Your task to perform on an android device: turn on translation in the chrome app Image 0: 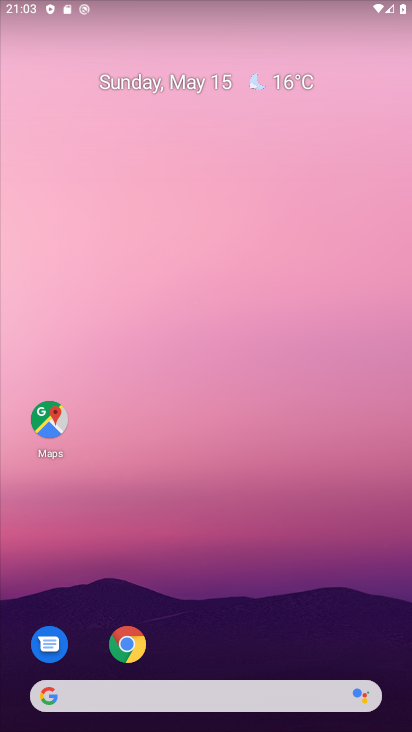
Step 0: click (120, 636)
Your task to perform on an android device: turn on translation in the chrome app Image 1: 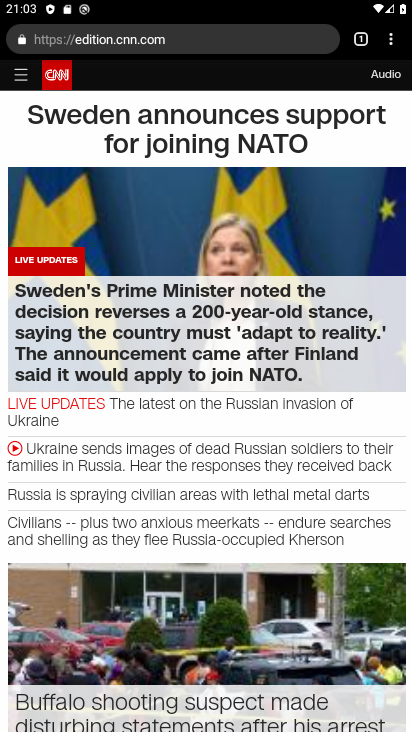
Step 1: drag from (392, 45) to (268, 439)
Your task to perform on an android device: turn on translation in the chrome app Image 2: 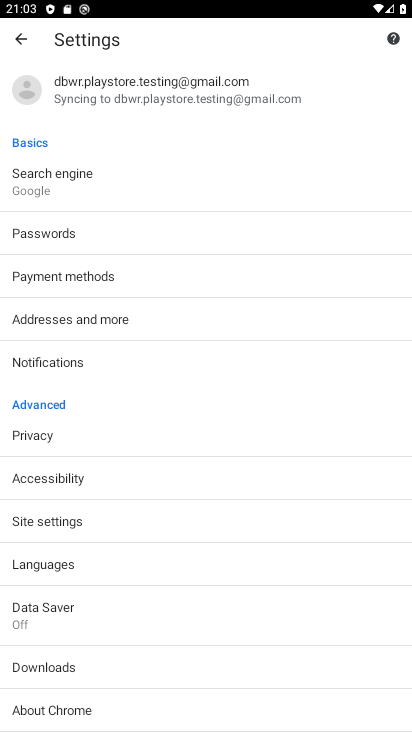
Step 2: click (81, 569)
Your task to perform on an android device: turn on translation in the chrome app Image 3: 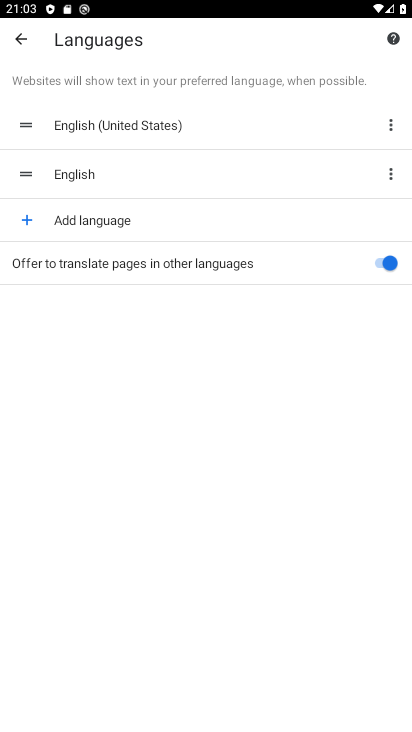
Step 3: task complete